Your task to perform on an android device: Open eBay Image 0: 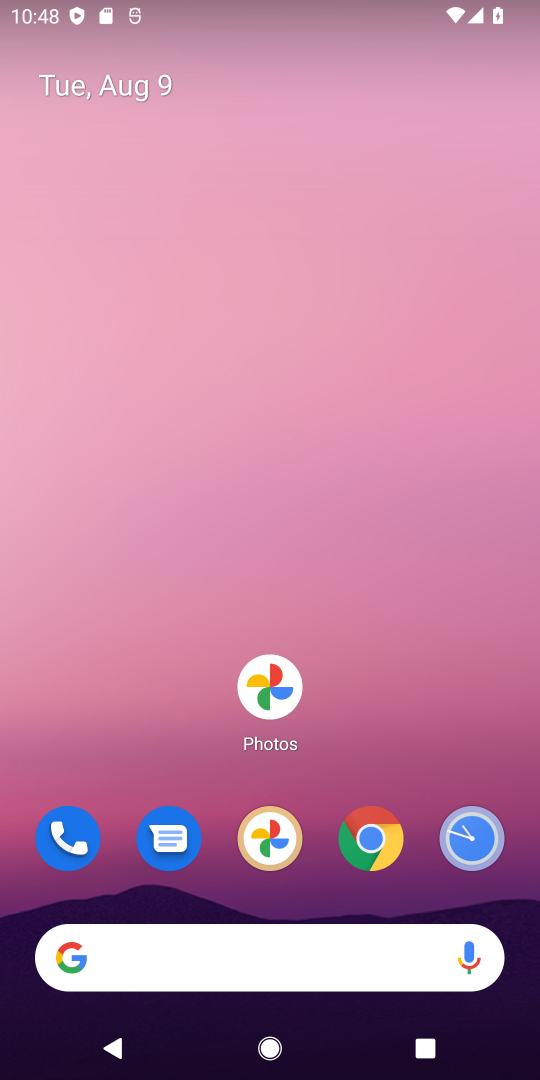
Step 0: click (367, 877)
Your task to perform on an android device: Open eBay Image 1: 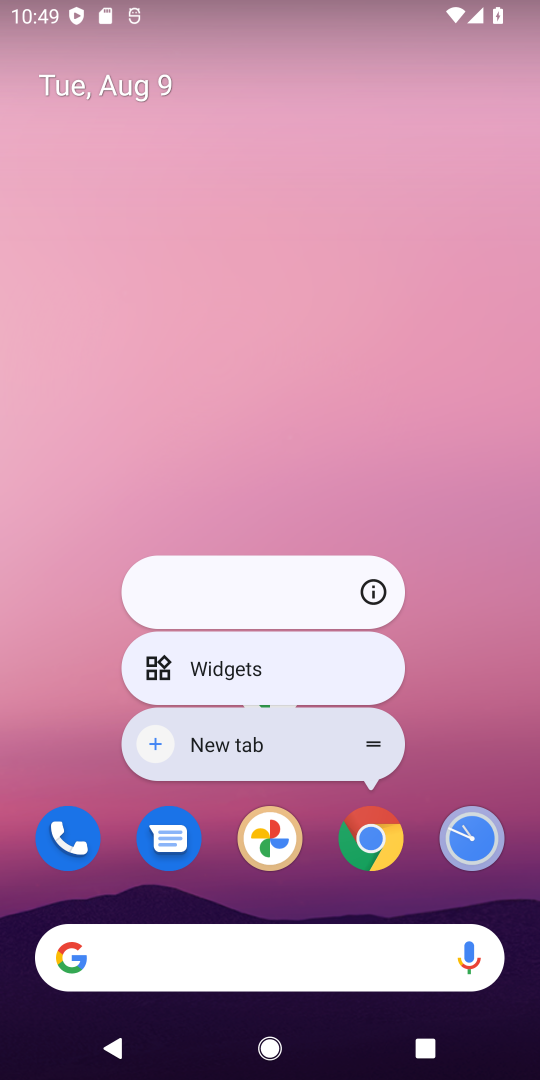
Step 1: click (356, 852)
Your task to perform on an android device: Open eBay Image 2: 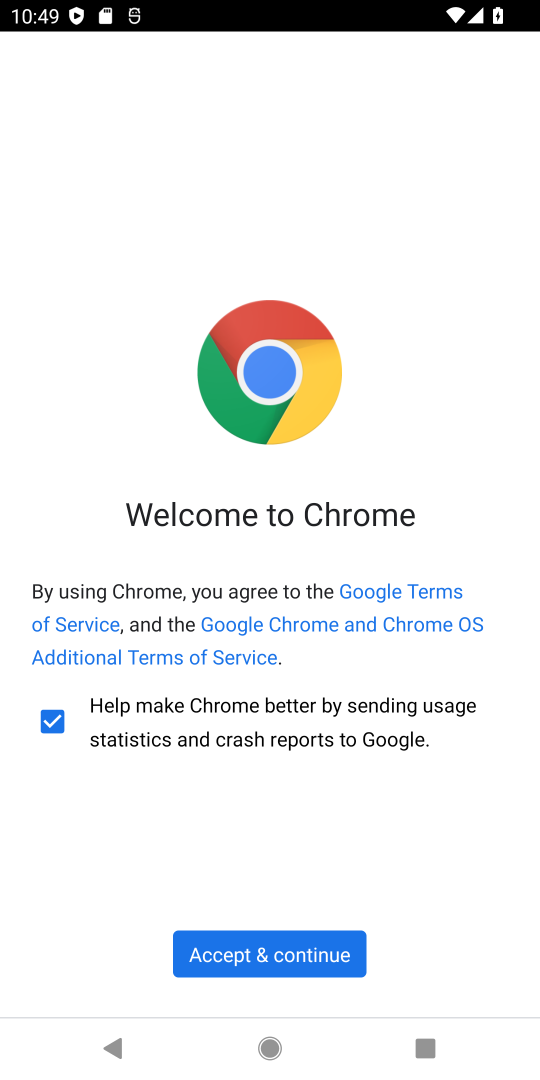
Step 2: click (331, 948)
Your task to perform on an android device: Open eBay Image 3: 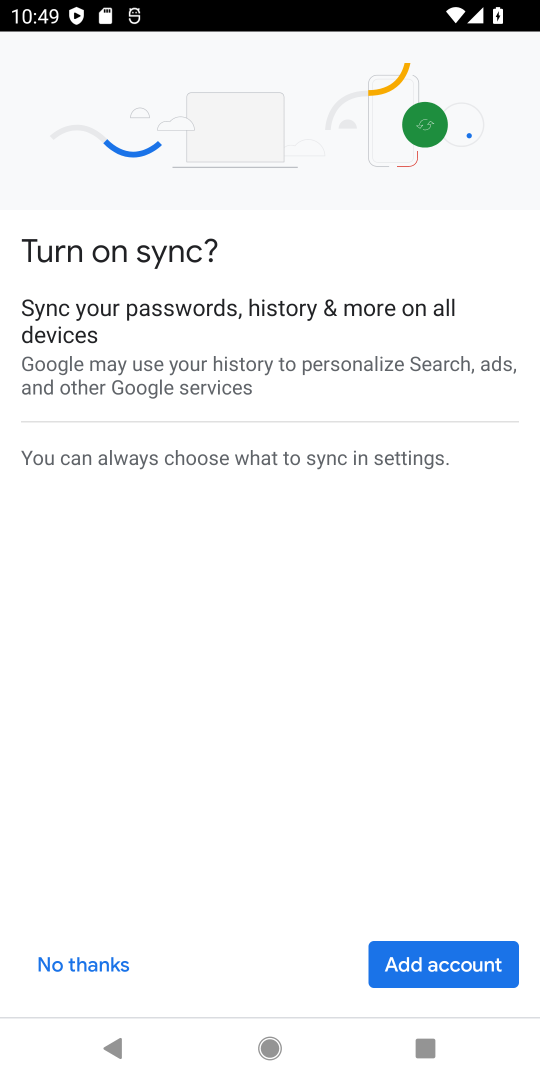
Step 3: task complete